Your task to perform on an android device: Open Maps and search for coffee Image 0: 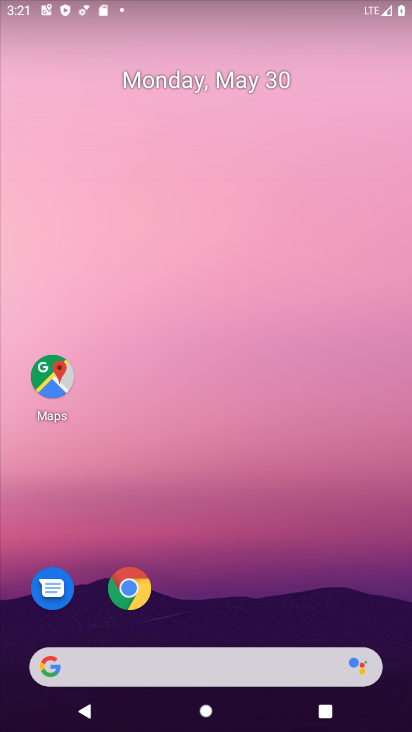
Step 0: drag from (303, 569) to (184, 12)
Your task to perform on an android device: Open Maps and search for coffee Image 1: 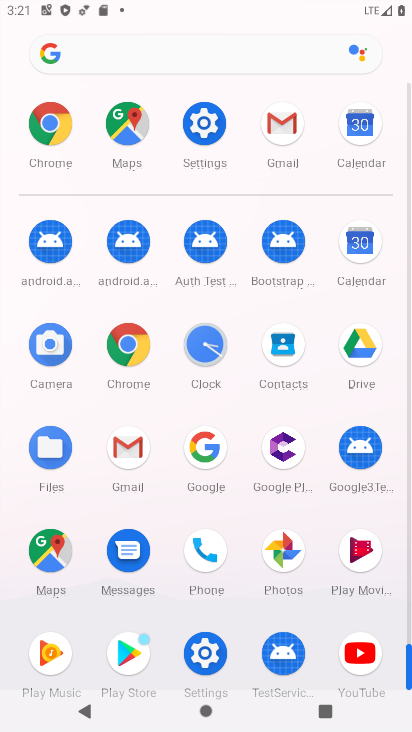
Step 1: drag from (14, 596) to (14, 271)
Your task to perform on an android device: Open Maps and search for coffee Image 2: 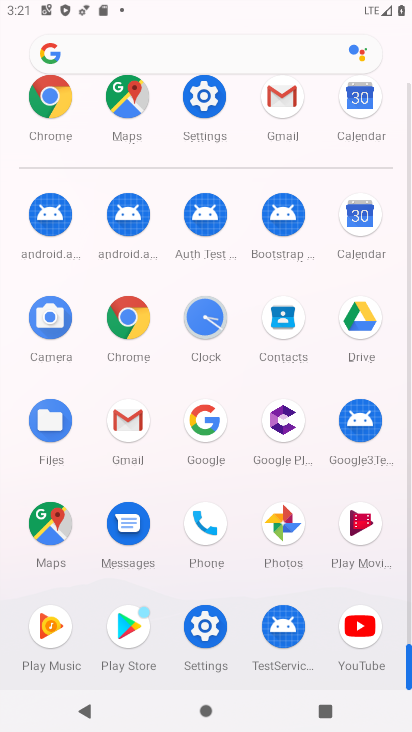
Step 2: click (46, 519)
Your task to perform on an android device: Open Maps and search for coffee Image 3: 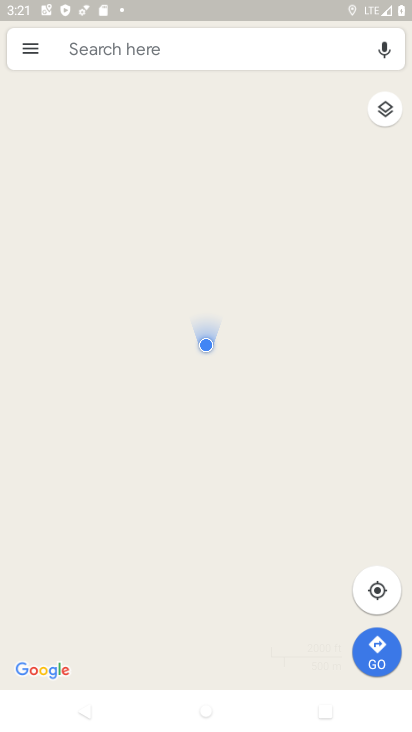
Step 3: click (221, 59)
Your task to perform on an android device: Open Maps and search for coffee Image 4: 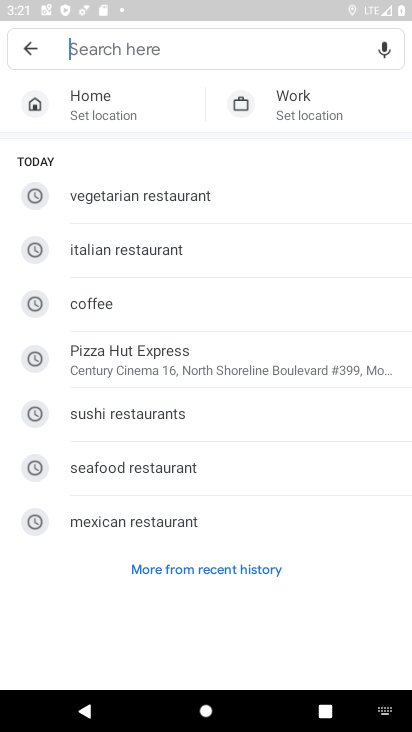
Step 4: click (111, 301)
Your task to perform on an android device: Open Maps and search for coffee Image 5: 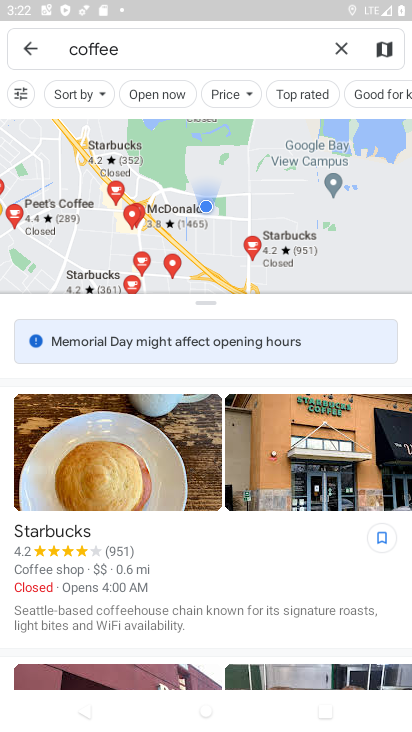
Step 5: task complete